Your task to perform on an android device: Open Reddit.com Image 0: 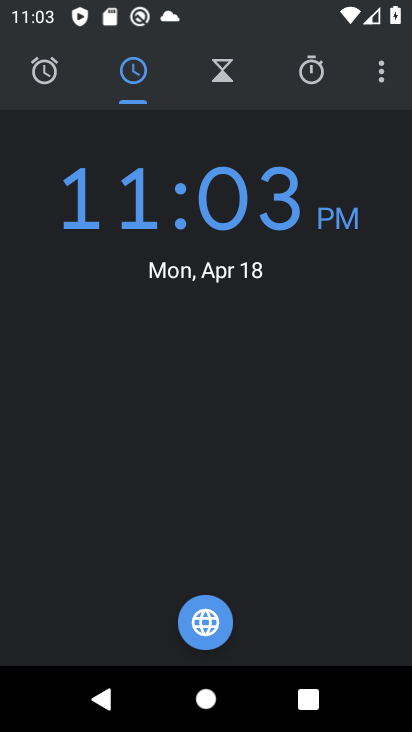
Step 0: press home button
Your task to perform on an android device: Open Reddit.com Image 1: 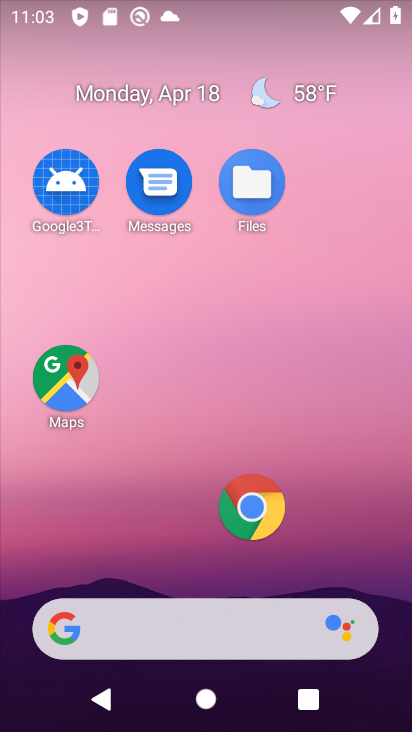
Step 1: click (245, 519)
Your task to perform on an android device: Open Reddit.com Image 2: 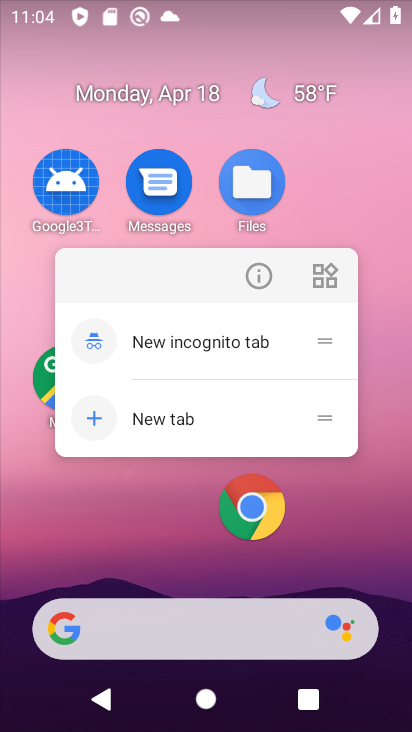
Step 2: click (236, 510)
Your task to perform on an android device: Open Reddit.com Image 3: 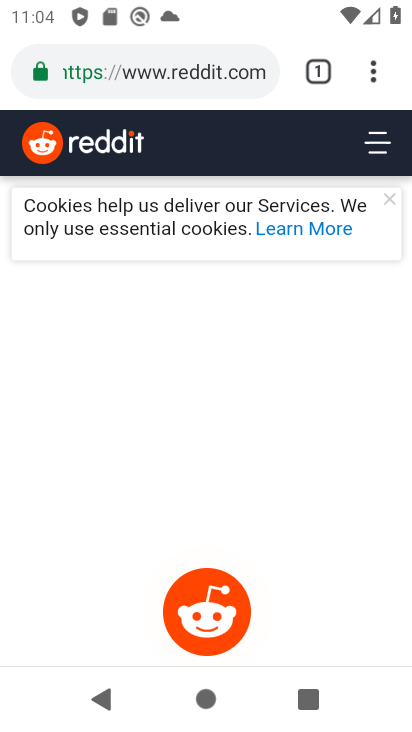
Step 3: task complete